Your task to perform on an android device: toggle improve location accuracy Image 0: 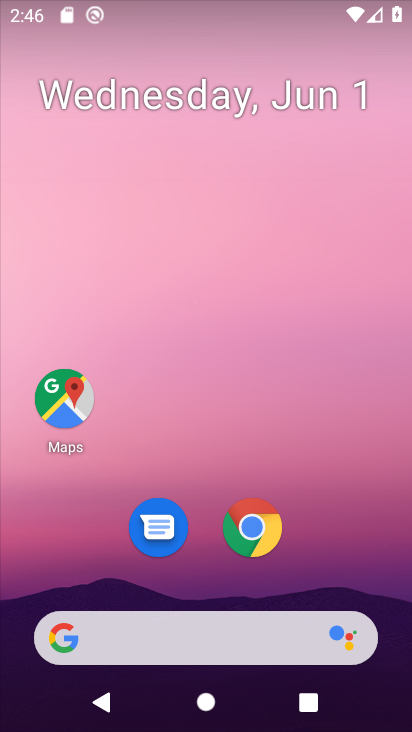
Step 0: drag from (219, 569) to (270, 93)
Your task to perform on an android device: toggle improve location accuracy Image 1: 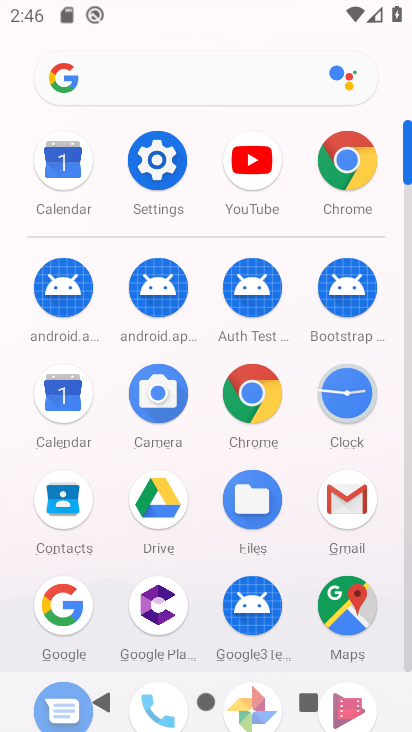
Step 1: click (168, 181)
Your task to perform on an android device: toggle improve location accuracy Image 2: 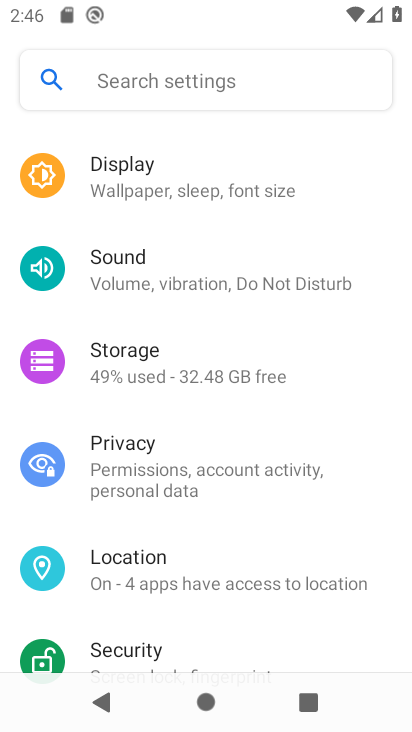
Step 2: click (141, 590)
Your task to perform on an android device: toggle improve location accuracy Image 3: 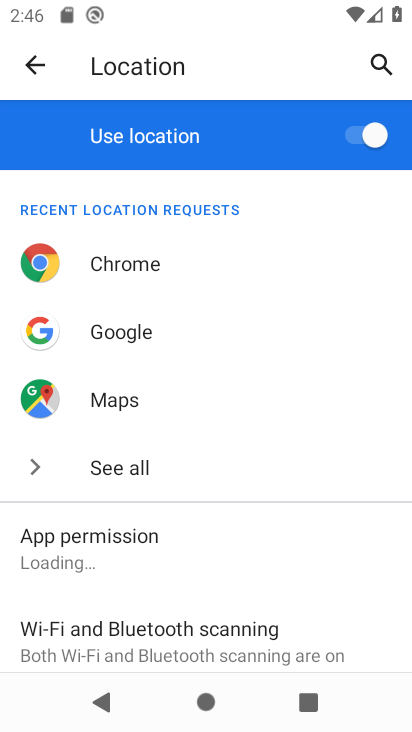
Step 3: drag from (251, 530) to (303, 248)
Your task to perform on an android device: toggle improve location accuracy Image 4: 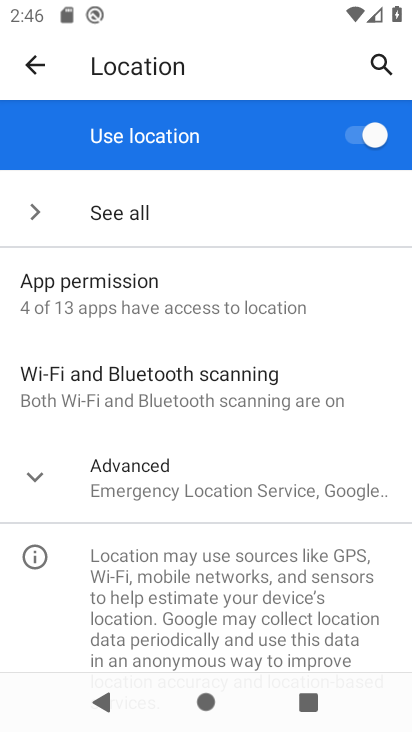
Step 4: click (99, 476)
Your task to perform on an android device: toggle improve location accuracy Image 5: 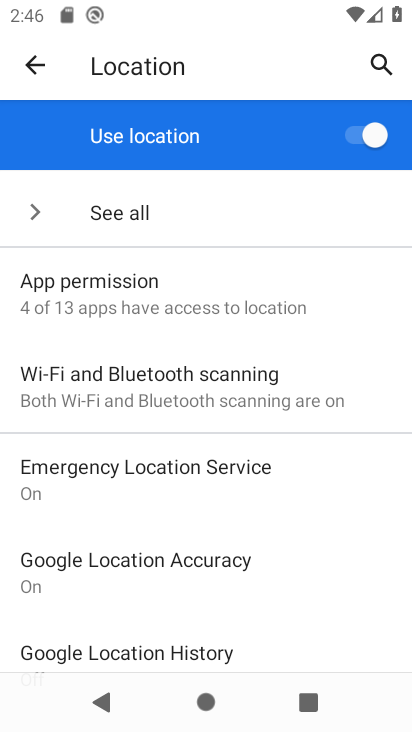
Step 5: click (141, 565)
Your task to perform on an android device: toggle improve location accuracy Image 6: 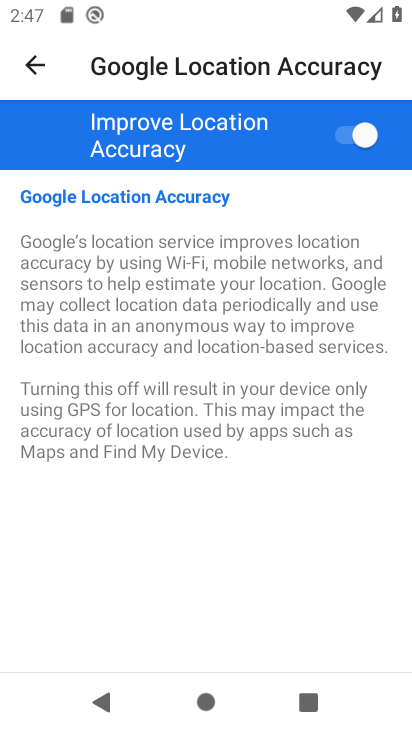
Step 6: task complete